Your task to perform on an android device: Go to location settings Image 0: 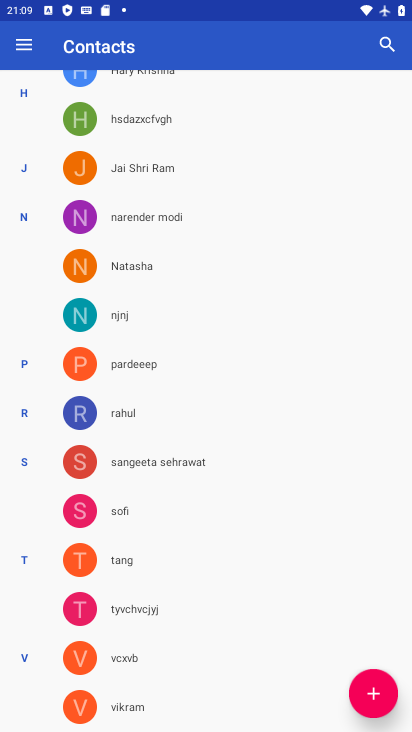
Step 0: press home button
Your task to perform on an android device: Go to location settings Image 1: 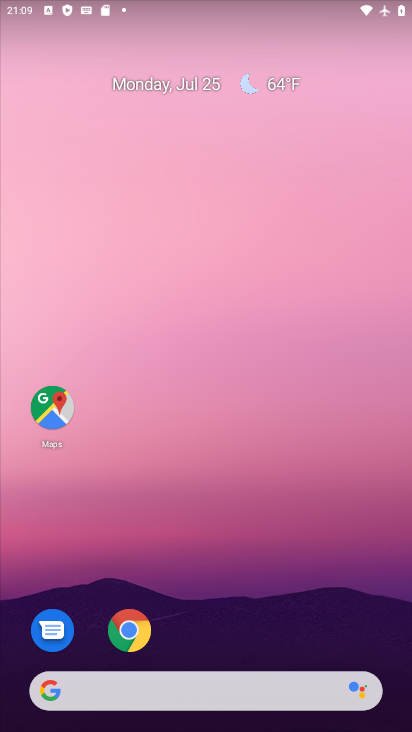
Step 1: drag from (367, 627) to (323, 129)
Your task to perform on an android device: Go to location settings Image 2: 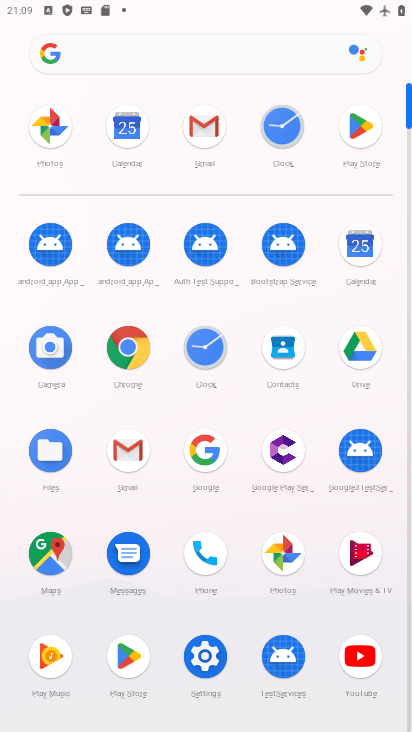
Step 2: click (203, 658)
Your task to perform on an android device: Go to location settings Image 3: 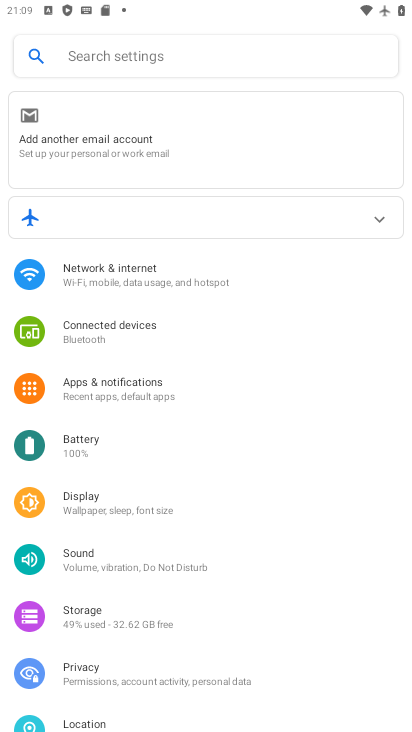
Step 3: drag from (317, 656) to (273, 211)
Your task to perform on an android device: Go to location settings Image 4: 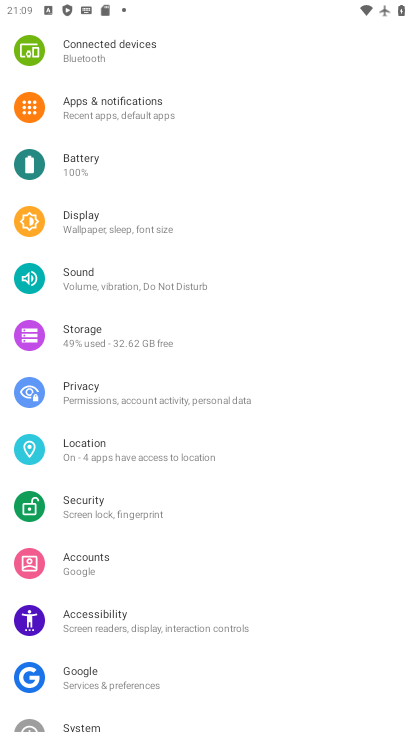
Step 4: click (89, 446)
Your task to perform on an android device: Go to location settings Image 5: 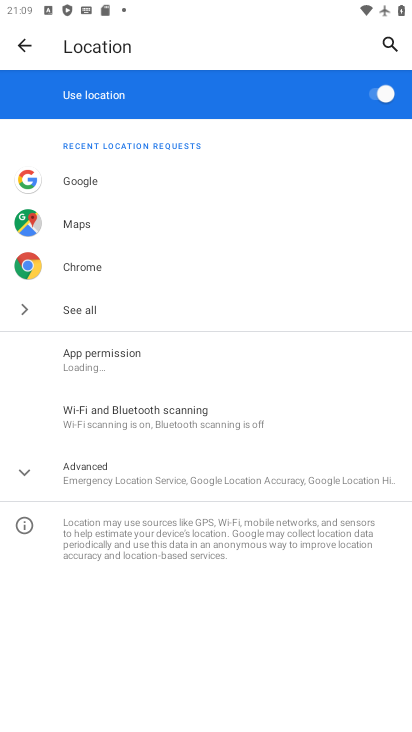
Step 5: click (25, 471)
Your task to perform on an android device: Go to location settings Image 6: 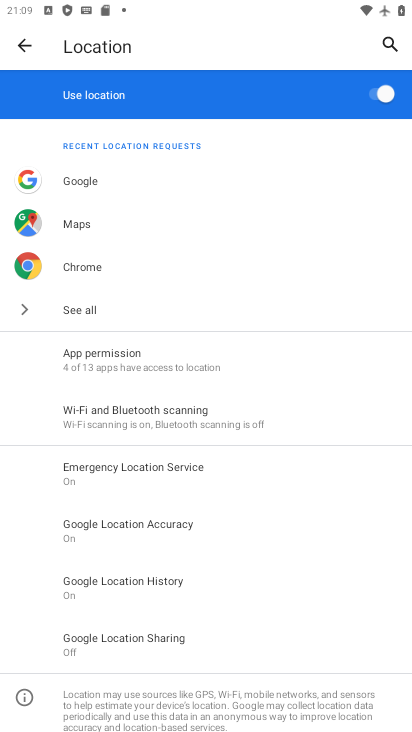
Step 6: task complete